Your task to perform on an android device: open app "Chime – Mobile Banking" (install if not already installed) Image 0: 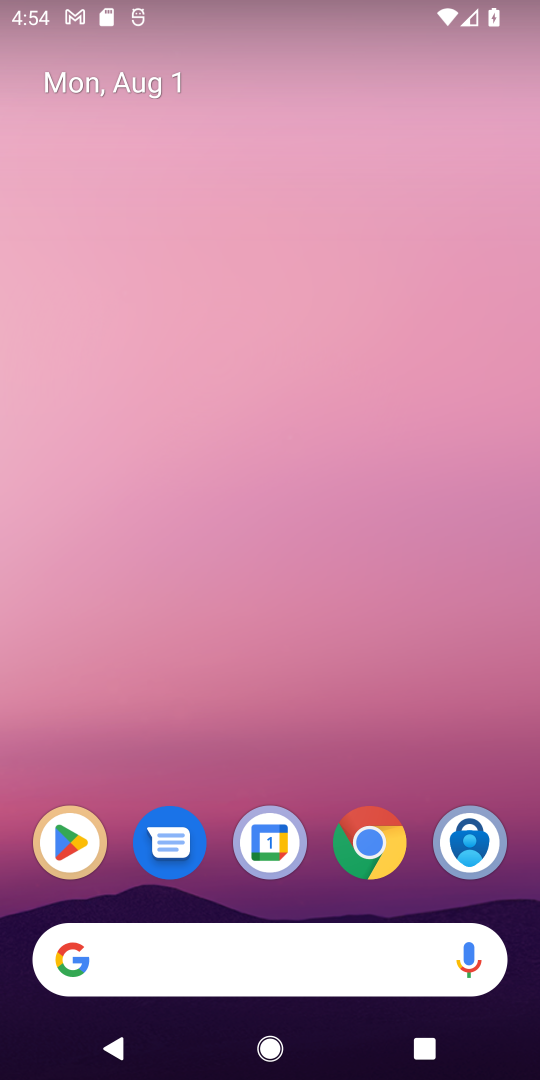
Step 0: drag from (319, 1013) to (347, 395)
Your task to perform on an android device: open app "Chime – Mobile Banking" (install if not already installed) Image 1: 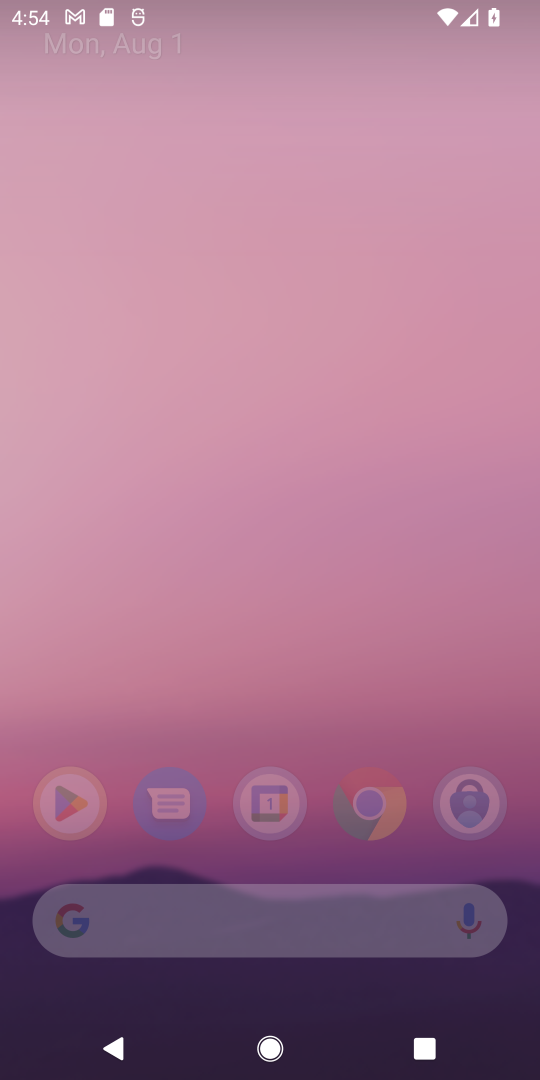
Step 1: drag from (295, 818) to (353, 179)
Your task to perform on an android device: open app "Chime – Mobile Banking" (install if not already installed) Image 2: 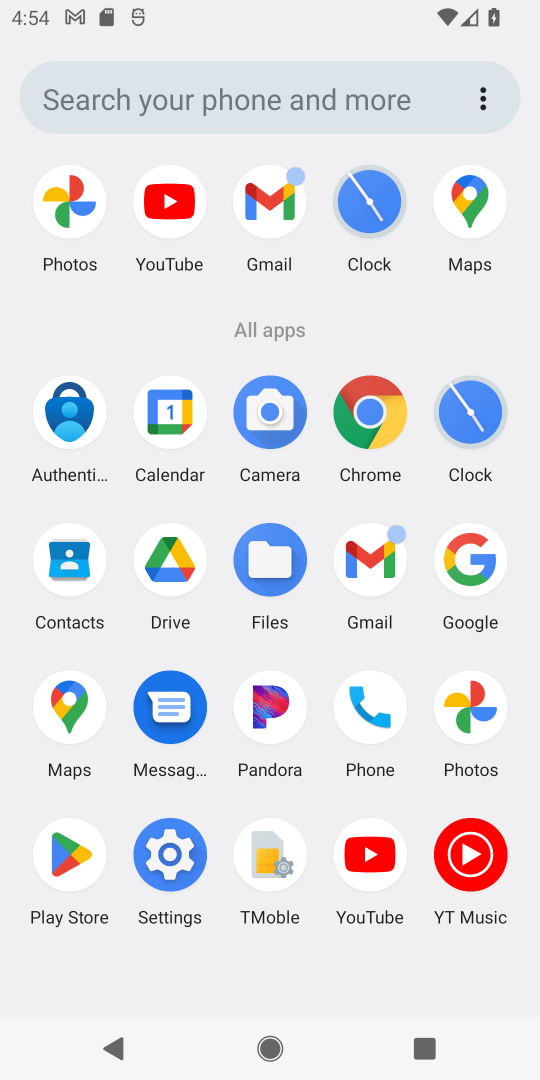
Step 2: click (73, 842)
Your task to perform on an android device: open app "Chime – Mobile Banking" (install if not already installed) Image 3: 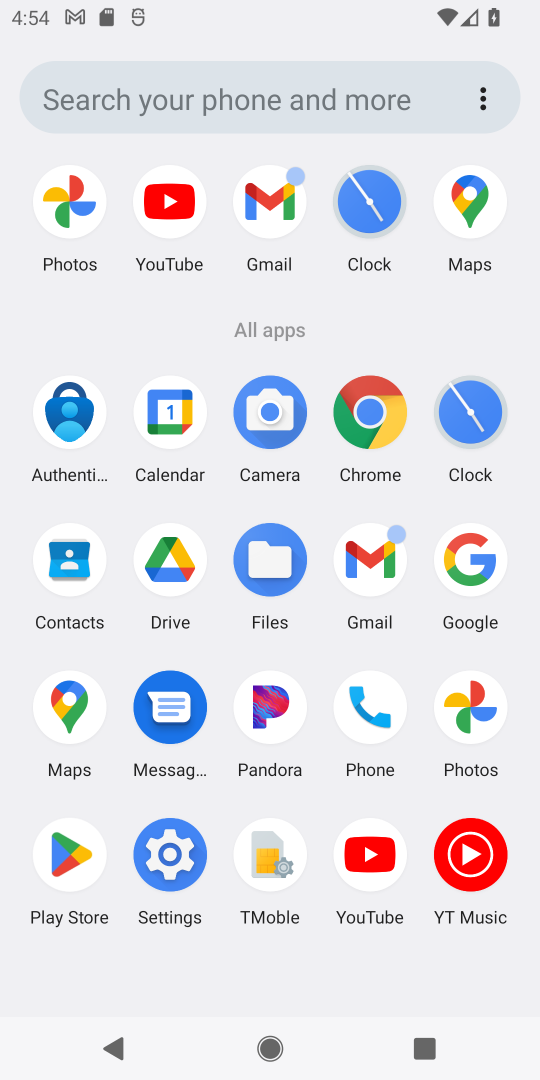
Step 3: click (84, 850)
Your task to perform on an android device: open app "Chime – Mobile Banking" (install if not already installed) Image 4: 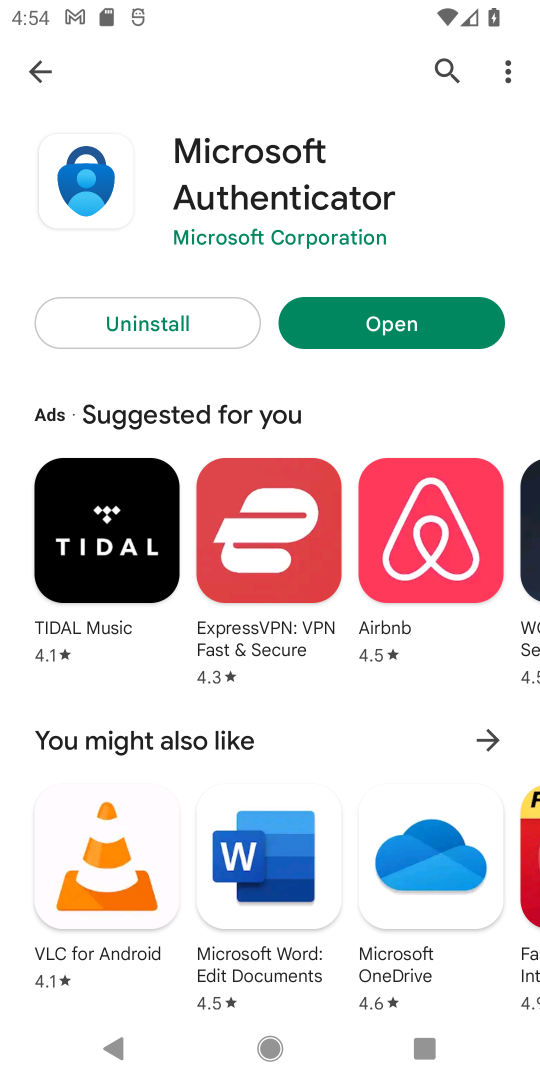
Step 4: click (34, 65)
Your task to perform on an android device: open app "Chime – Mobile Banking" (install if not already installed) Image 5: 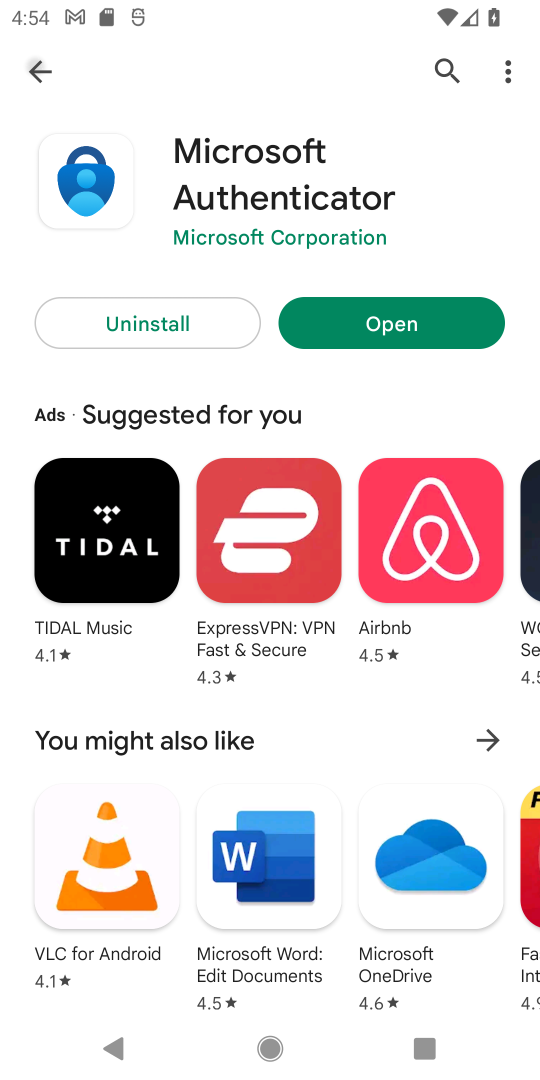
Step 5: click (33, 64)
Your task to perform on an android device: open app "Chime – Mobile Banking" (install if not already installed) Image 6: 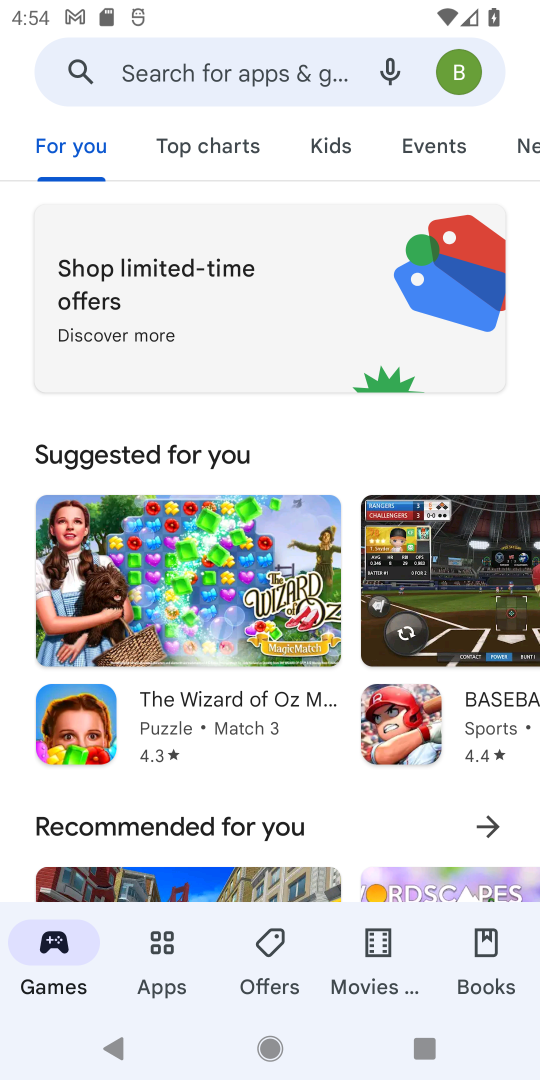
Step 6: click (139, 58)
Your task to perform on an android device: open app "Chime – Mobile Banking" (install if not already installed) Image 7: 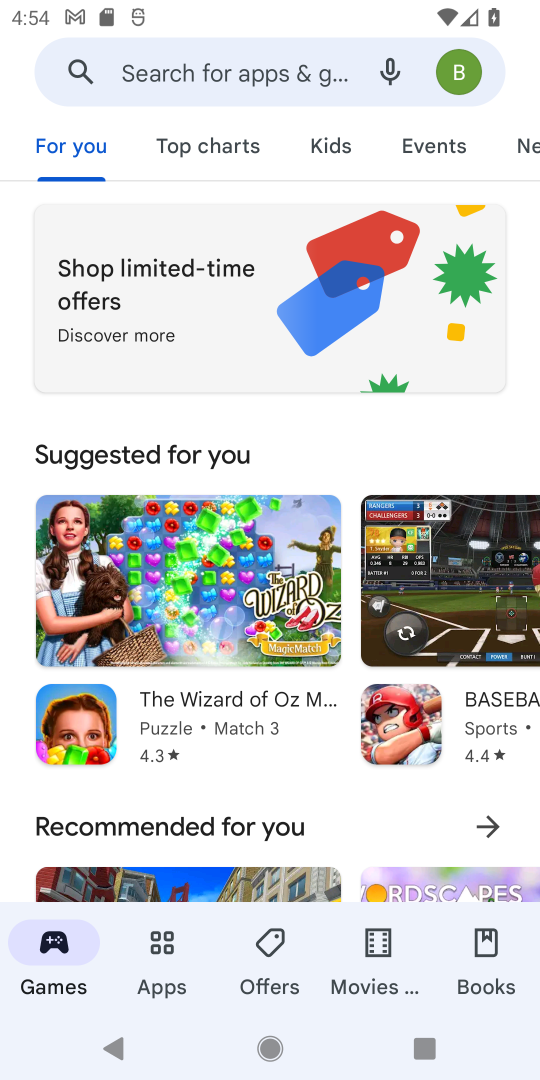
Step 7: click (140, 59)
Your task to perform on an android device: open app "Chime – Mobile Banking" (install if not already installed) Image 8: 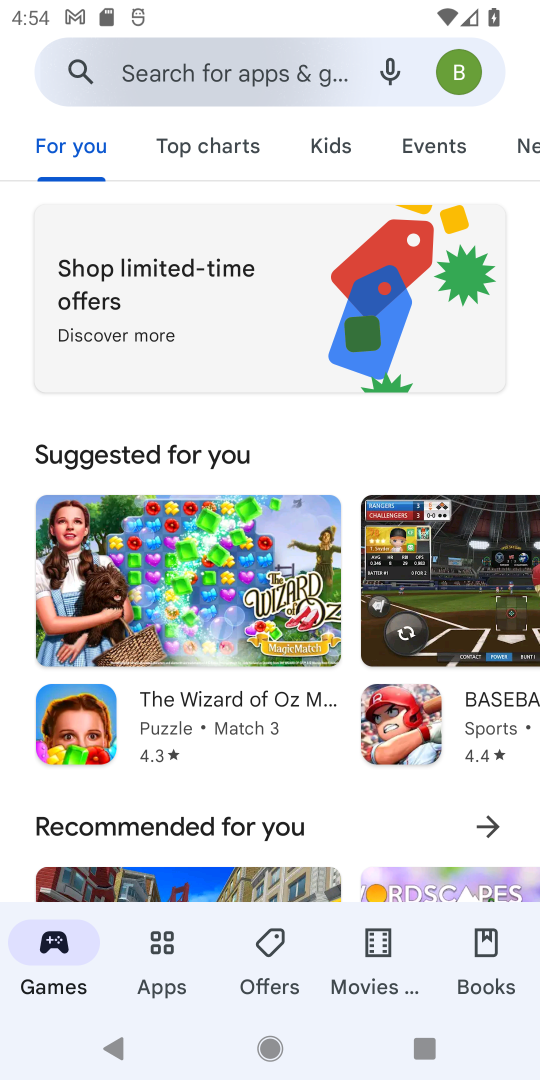
Step 8: click (141, 62)
Your task to perform on an android device: open app "Chime – Mobile Banking" (install if not already installed) Image 9: 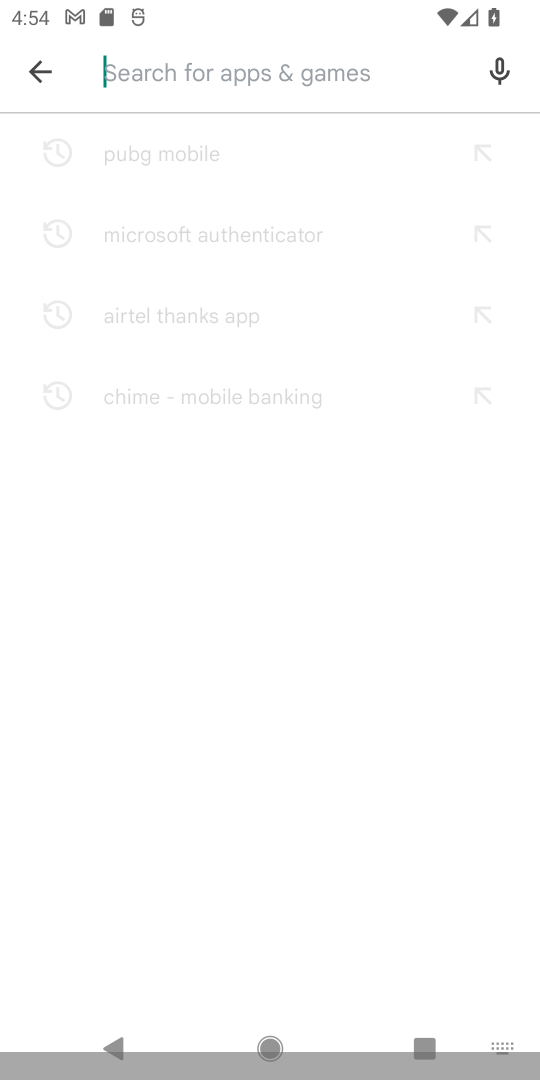
Step 9: click (147, 75)
Your task to perform on an android device: open app "Chime – Mobile Banking" (install if not already installed) Image 10: 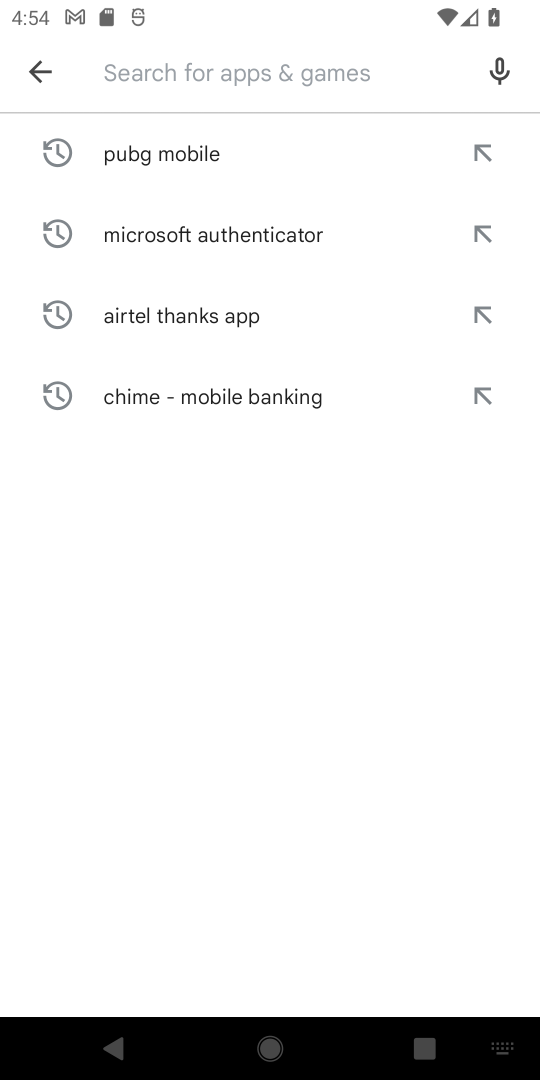
Step 10: click (227, 398)
Your task to perform on an android device: open app "Chime – Mobile Banking" (install if not already installed) Image 11: 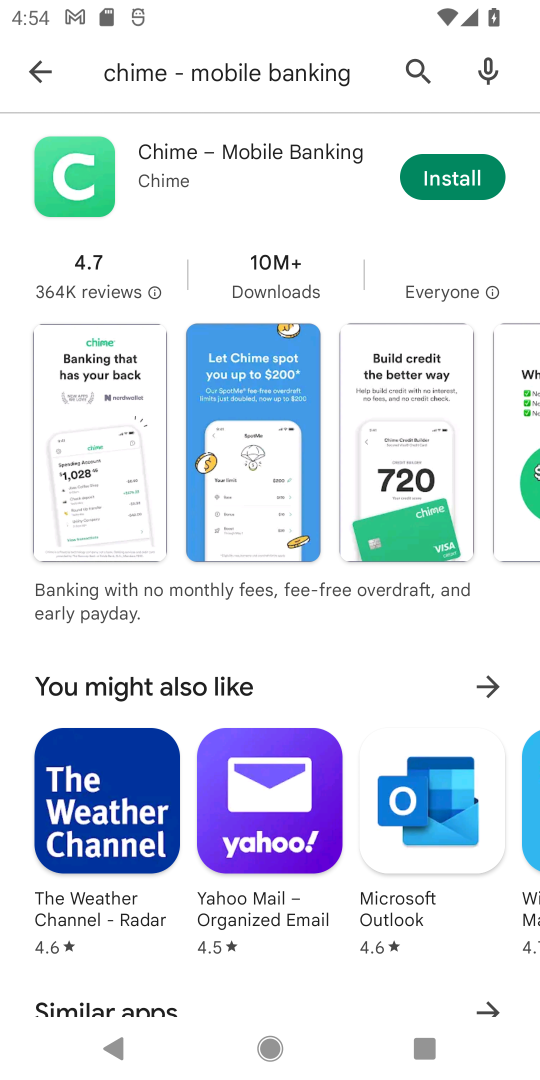
Step 11: click (476, 164)
Your task to perform on an android device: open app "Chime – Mobile Banking" (install if not already installed) Image 12: 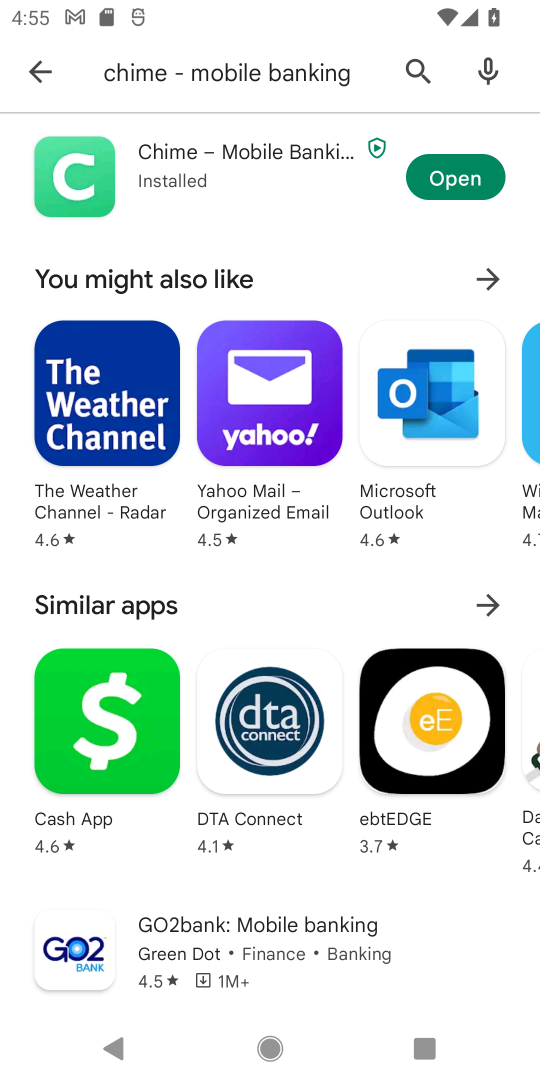
Step 12: click (465, 178)
Your task to perform on an android device: open app "Chime – Mobile Banking" (install if not already installed) Image 13: 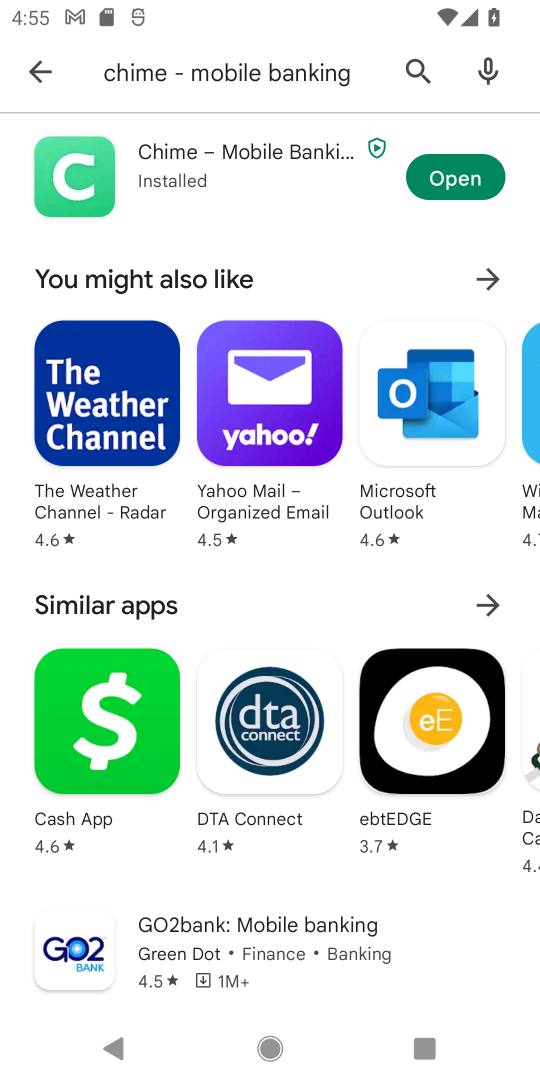
Step 13: click (465, 178)
Your task to perform on an android device: open app "Chime – Mobile Banking" (install if not already installed) Image 14: 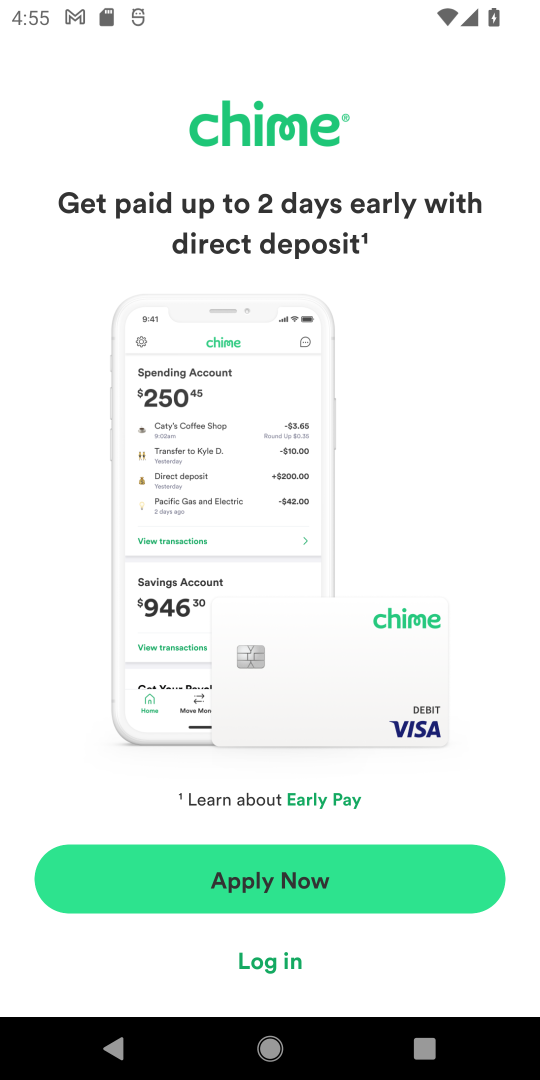
Step 14: click (263, 955)
Your task to perform on an android device: open app "Chime – Mobile Banking" (install if not already installed) Image 15: 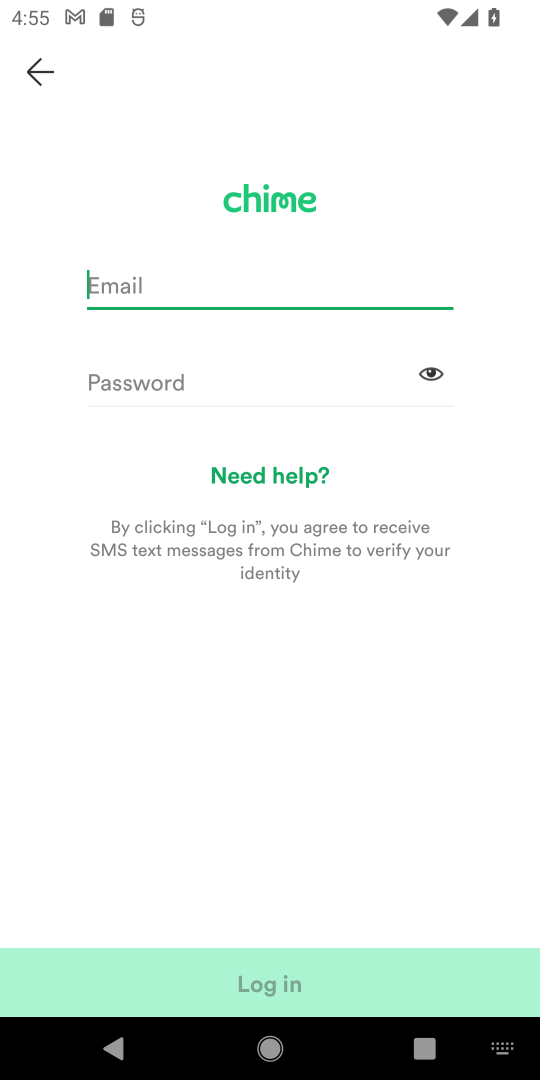
Step 15: task complete